Your task to perform on an android device: add a contact Image 0: 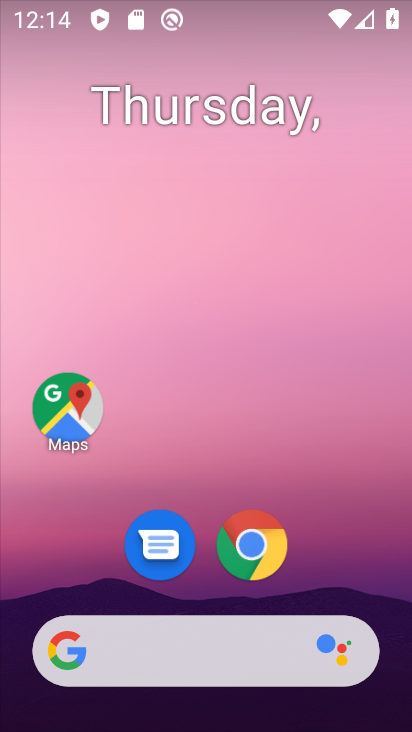
Step 0: drag from (227, 592) to (362, 112)
Your task to perform on an android device: add a contact Image 1: 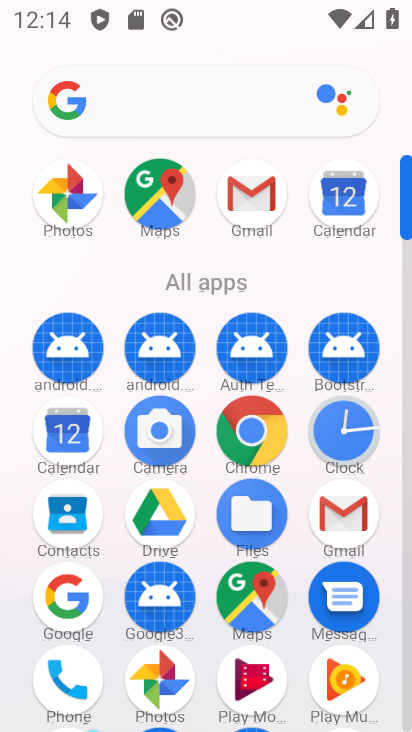
Step 1: click (63, 530)
Your task to perform on an android device: add a contact Image 2: 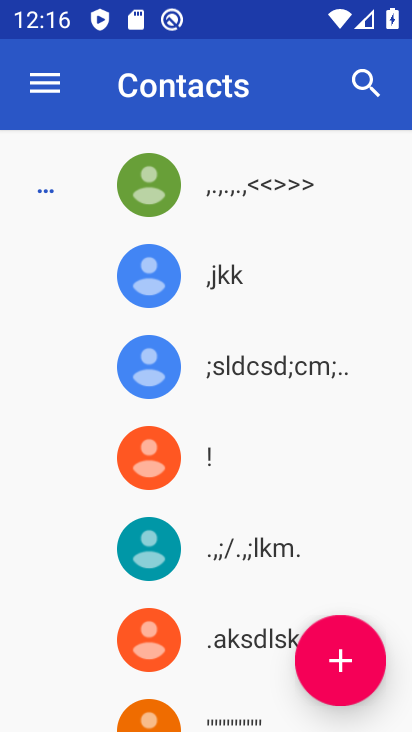
Step 2: click (328, 669)
Your task to perform on an android device: add a contact Image 3: 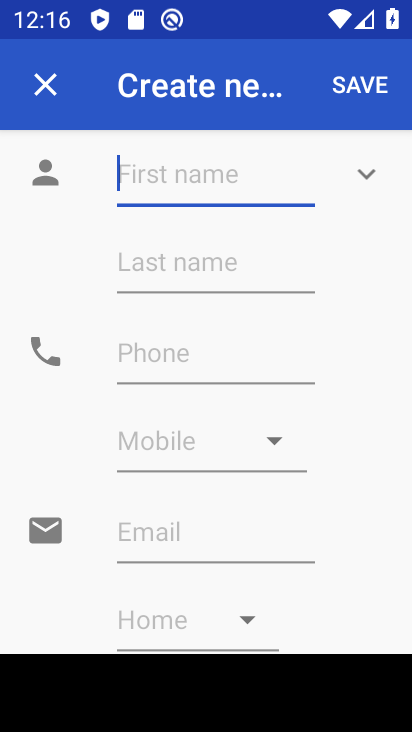
Step 3: type "dgdhfj"
Your task to perform on an android device: add a contact Image 4: 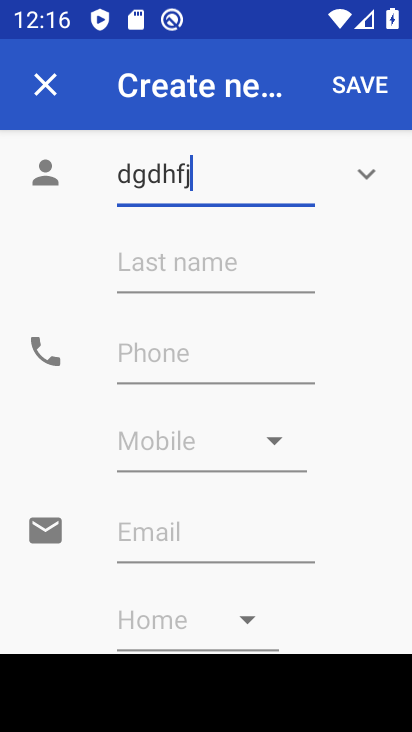
Step 4: type ""
Your task to perform on an android device: add a contact Image 5: 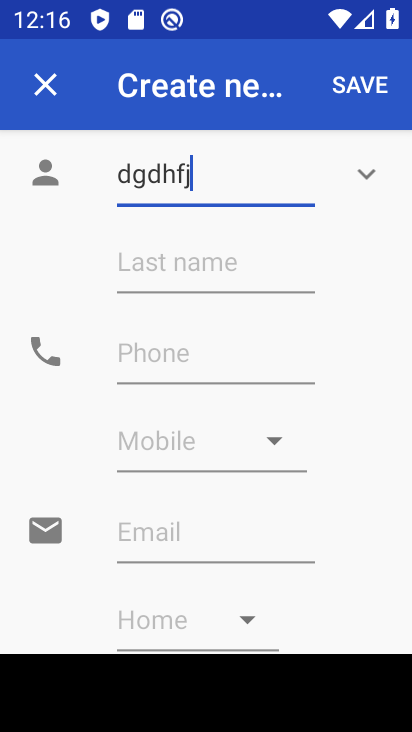
Step 5: click (363, 98)
Your task to perform on an android device: add a contact Image 6: 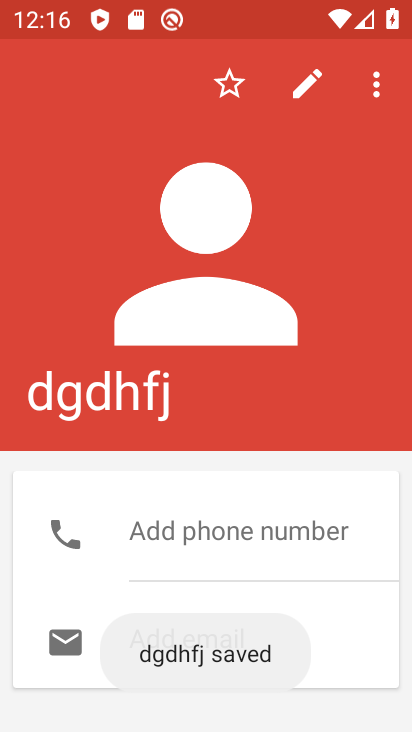
Step 6: task complete